Your task to perform on an android device: Open display settings Image 0: 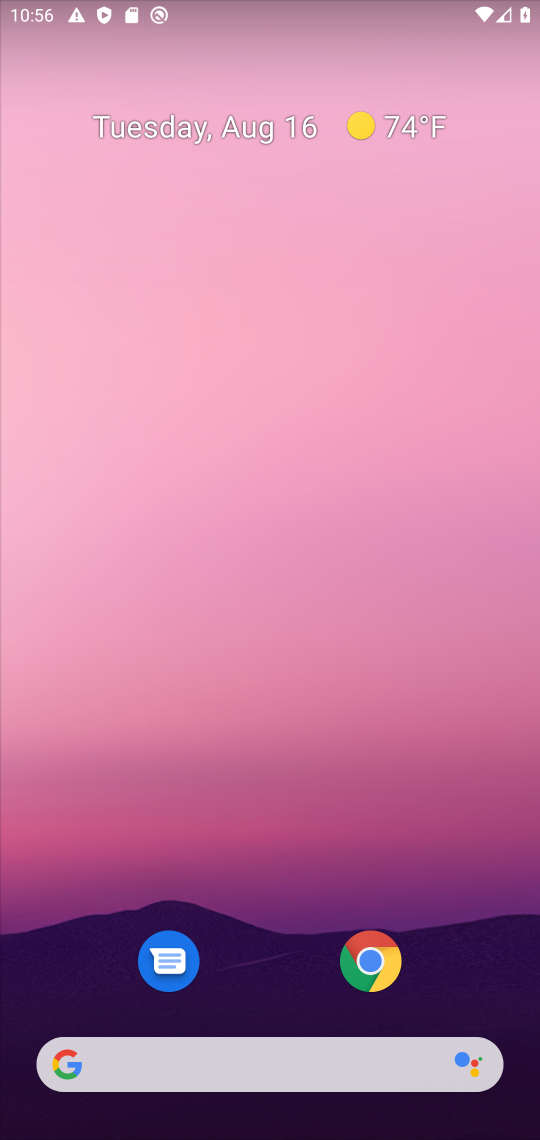
Step 0: drag from (382, 767) to (267, 34)
Your task to perform on an android device: Open display settings Image 1: 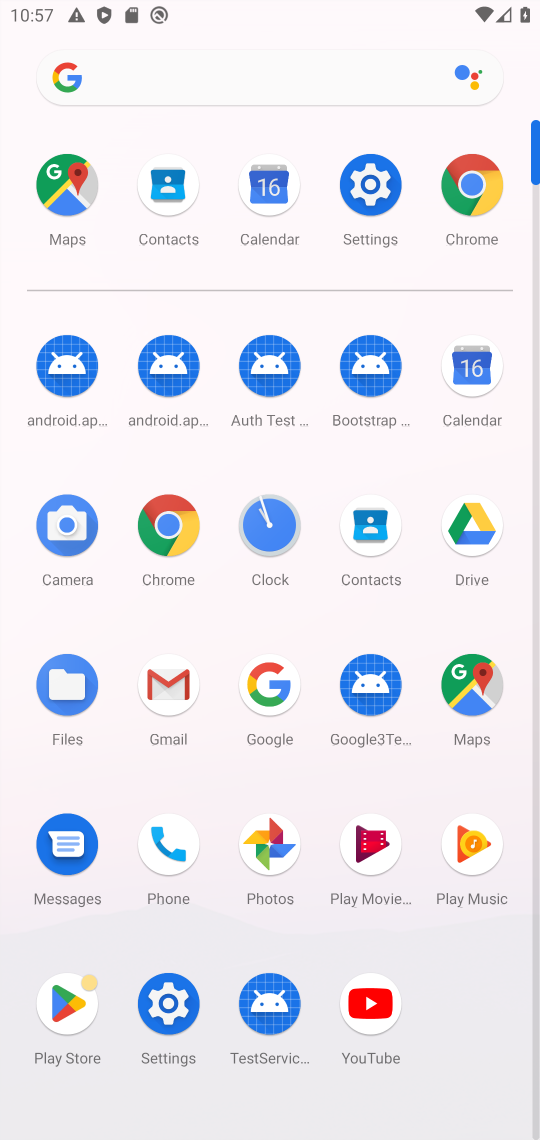
Step 1: click (151, 1016)
Your task to perform on an android device: Open display settings Image 2: 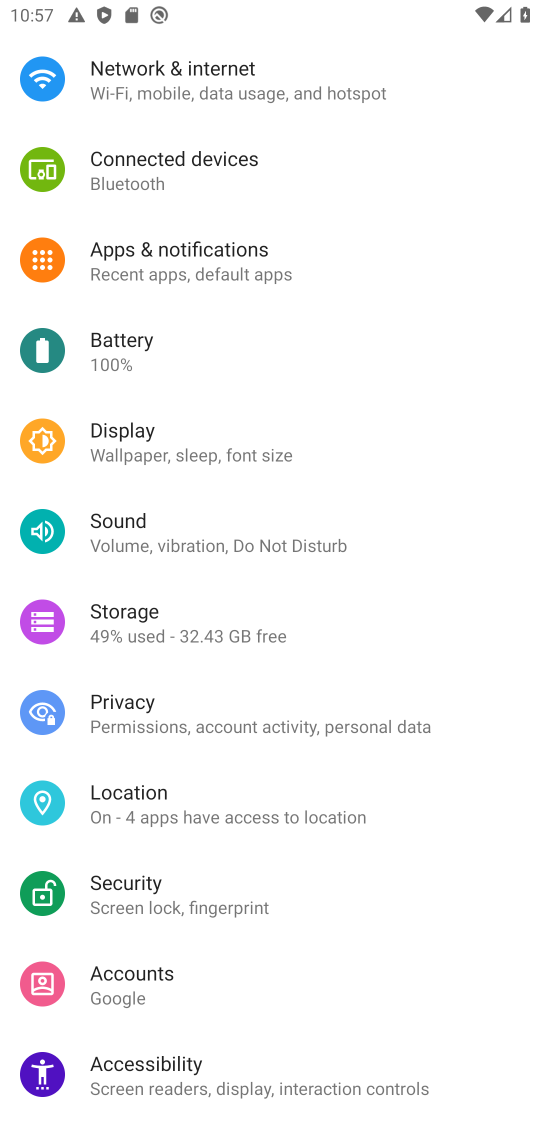
Step 2: click (155, 431)
Your task to perform on an android device: Open display settings Image 3: 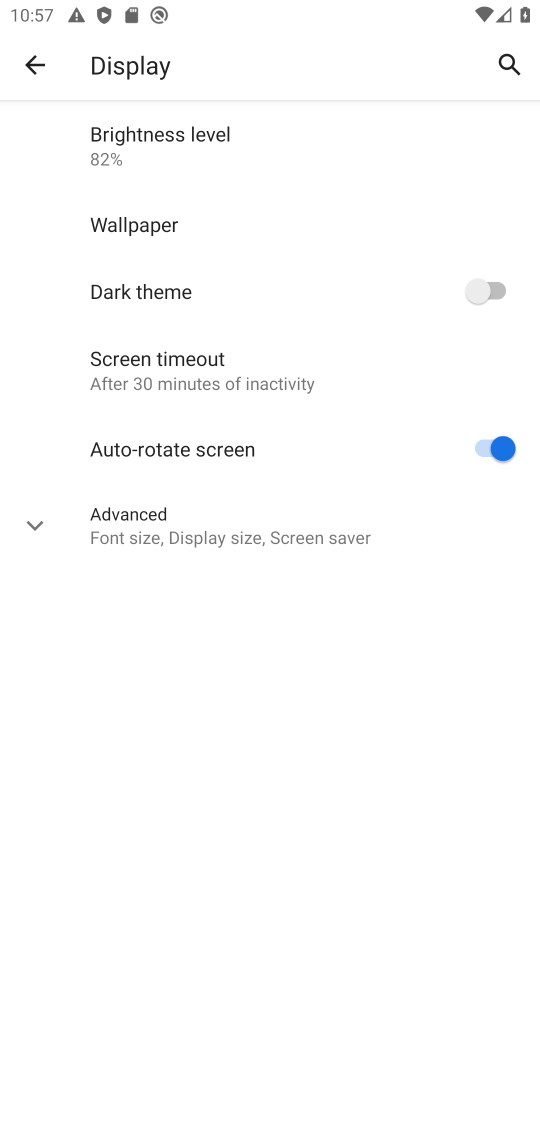
Step 3: task complete